Your task to perform on an android device: Open wifi settings Image 0: 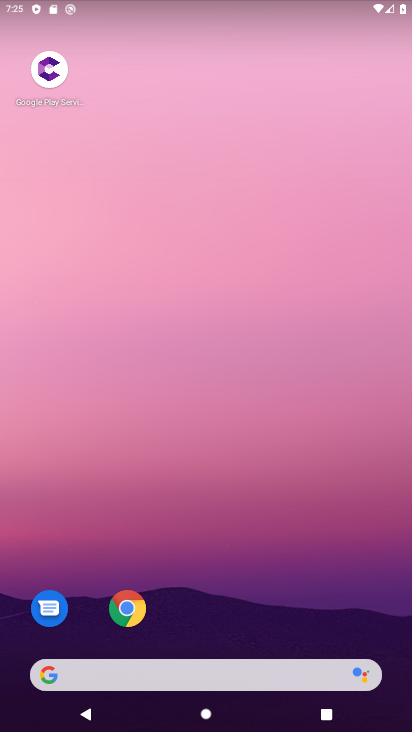
Step 0: drag from (173, 48) to (227, 55)
Your task to perform on an android device: Open wifi settings Image 1: 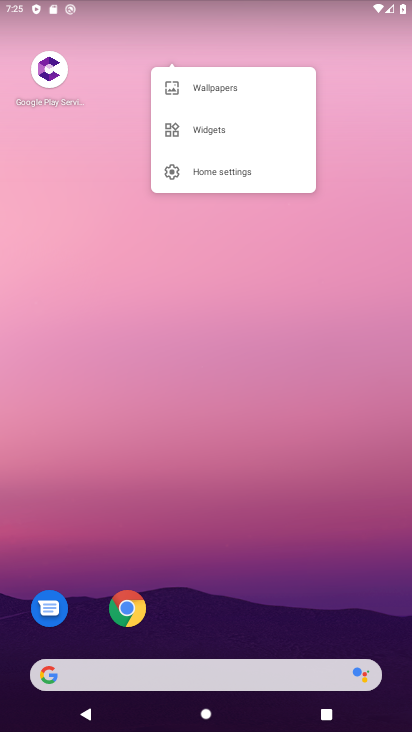
Step 1: click (224, 645)
Your task to perform on an android device: Open wifi settings Image 2: 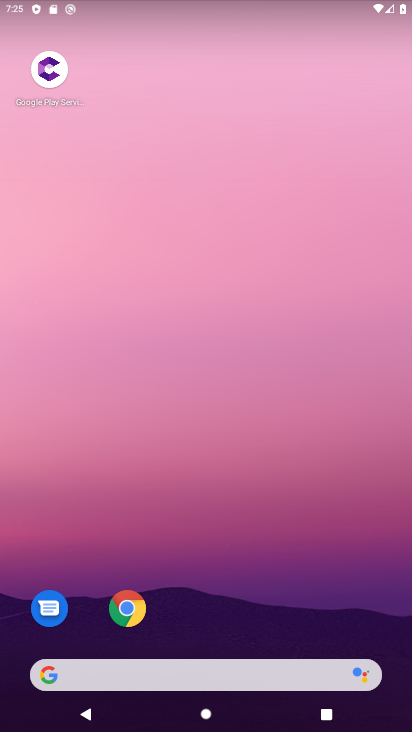
Step 2: drag from (222, 609) to (214, 61)
Your task to perform on an android device: Open wifi settings Image 3: 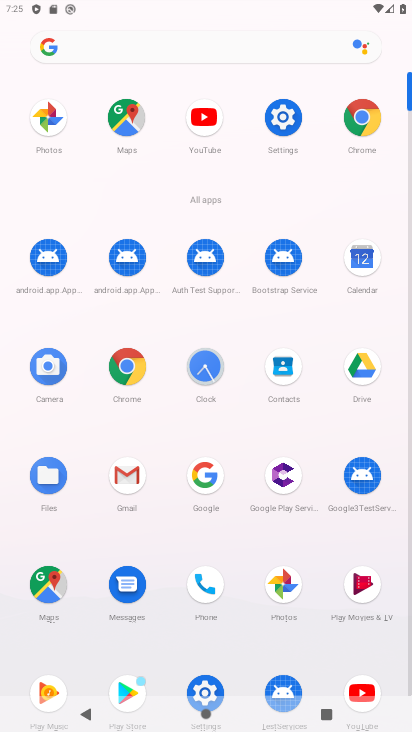
Step 3: click (280, 121)
Your task to perform on an android device: Open wifi settings Image 4: 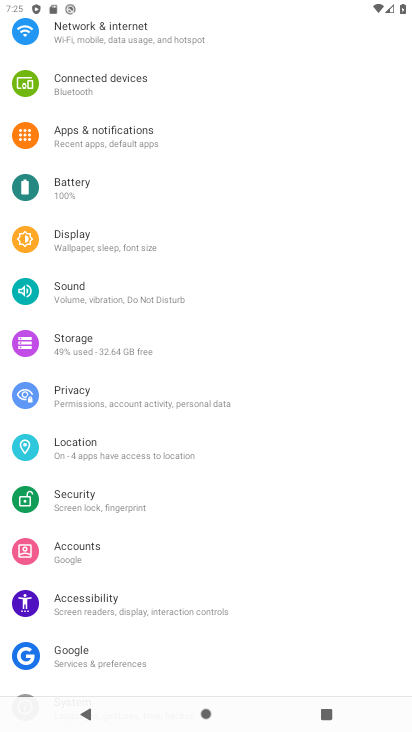
Step 4: click (183, 34)
Your task to perform on an android device: Open wifi settings Image 5: 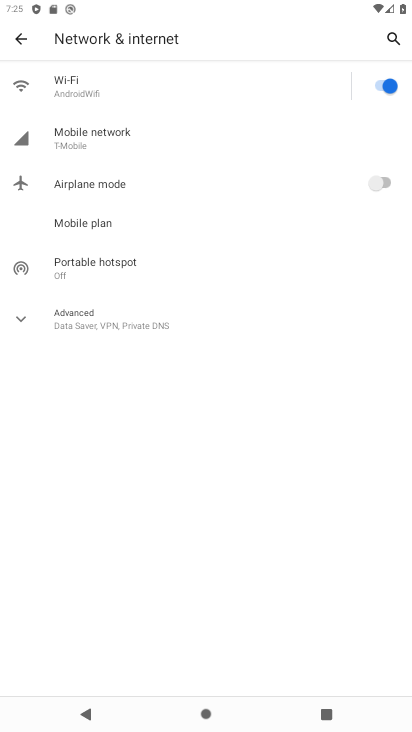
Step 5: click (141, 92)
Your task to perform on an android device: Open wifi settings Image 6: 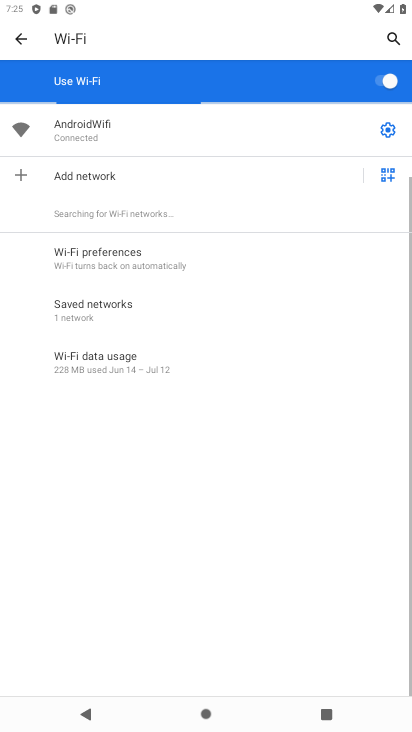
Step 6: task complete